Your task to perform on an android device: turn off translation in the chrome app Image 0: 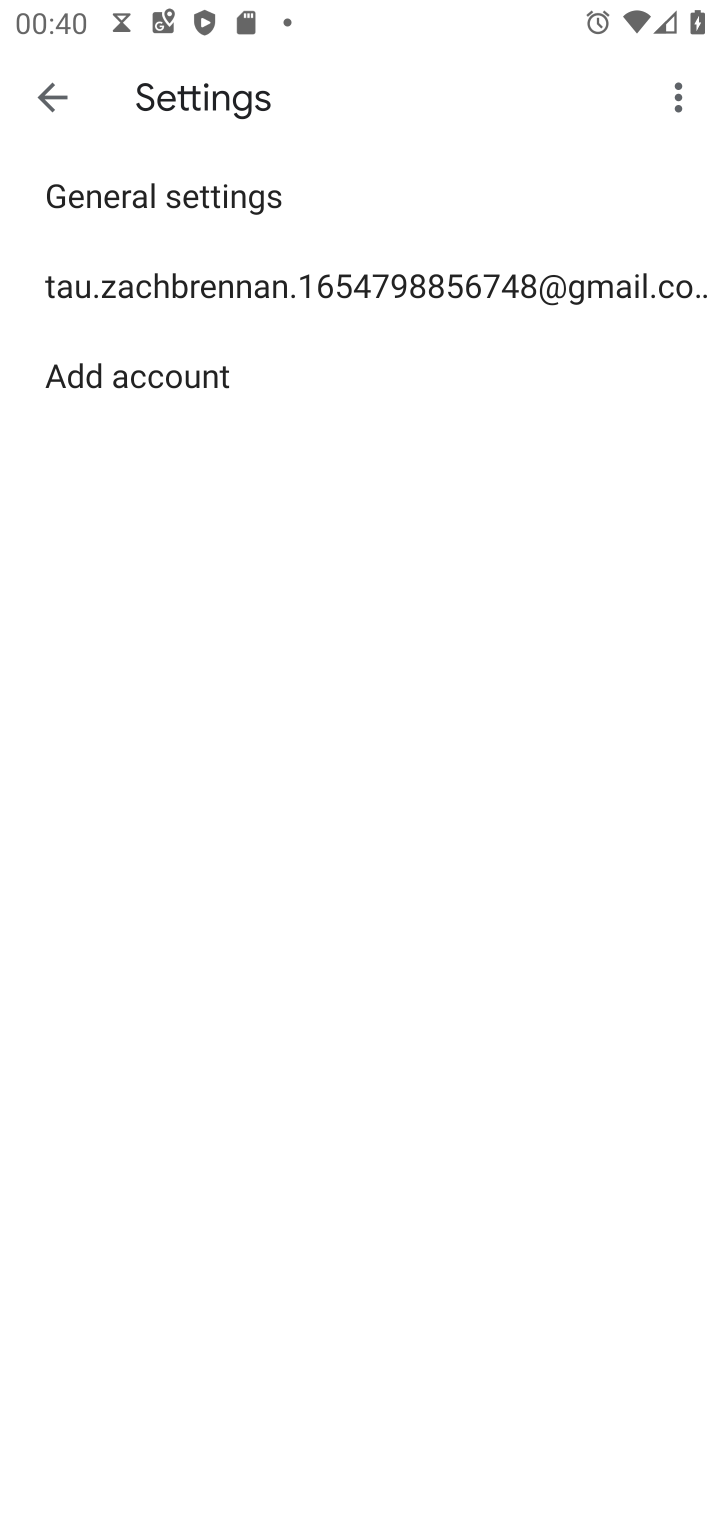
Step 0: press home button
Your task to perform on an android device: turn off translation in the chrome app Image 1: 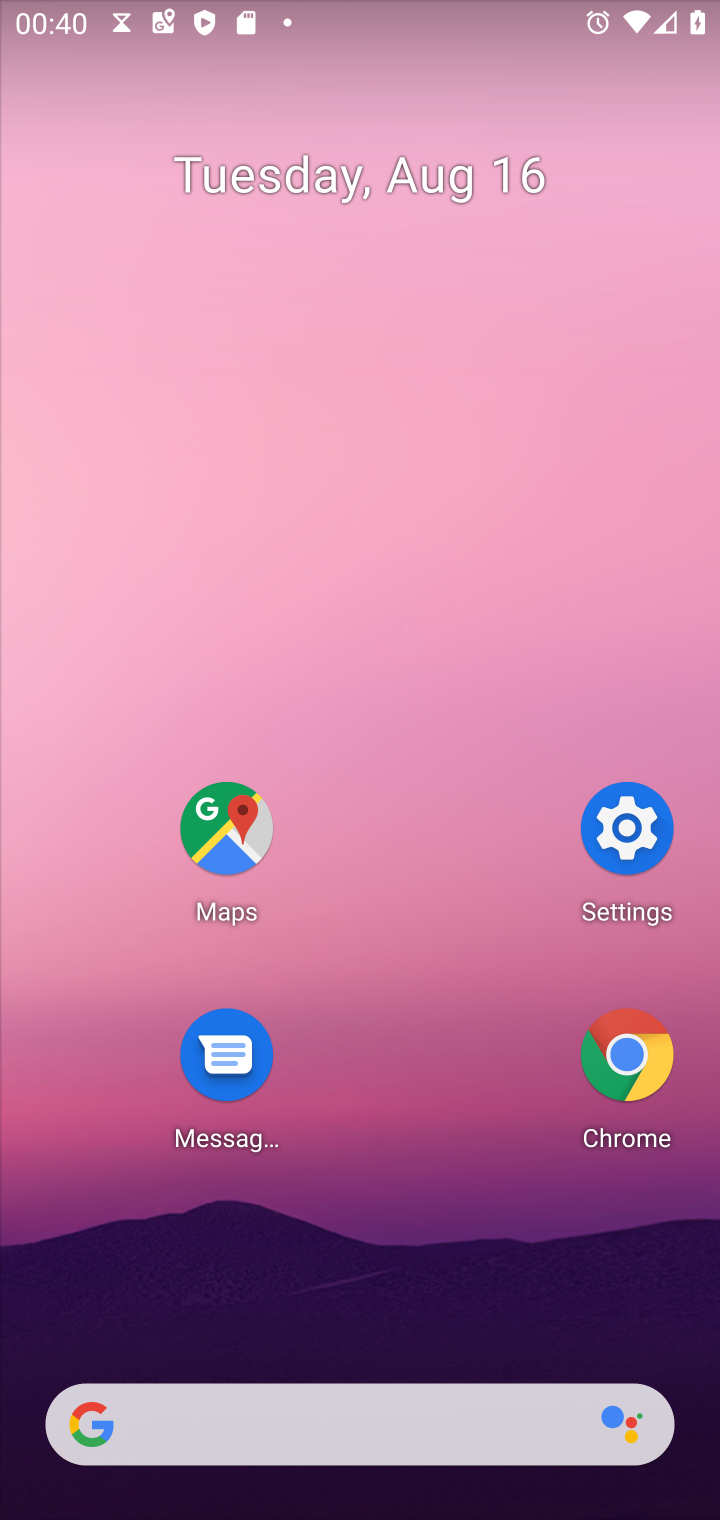
Step 1: click (632, 1051)
Your task to perform on an android device: turn off translation in the chrome app Image 2: 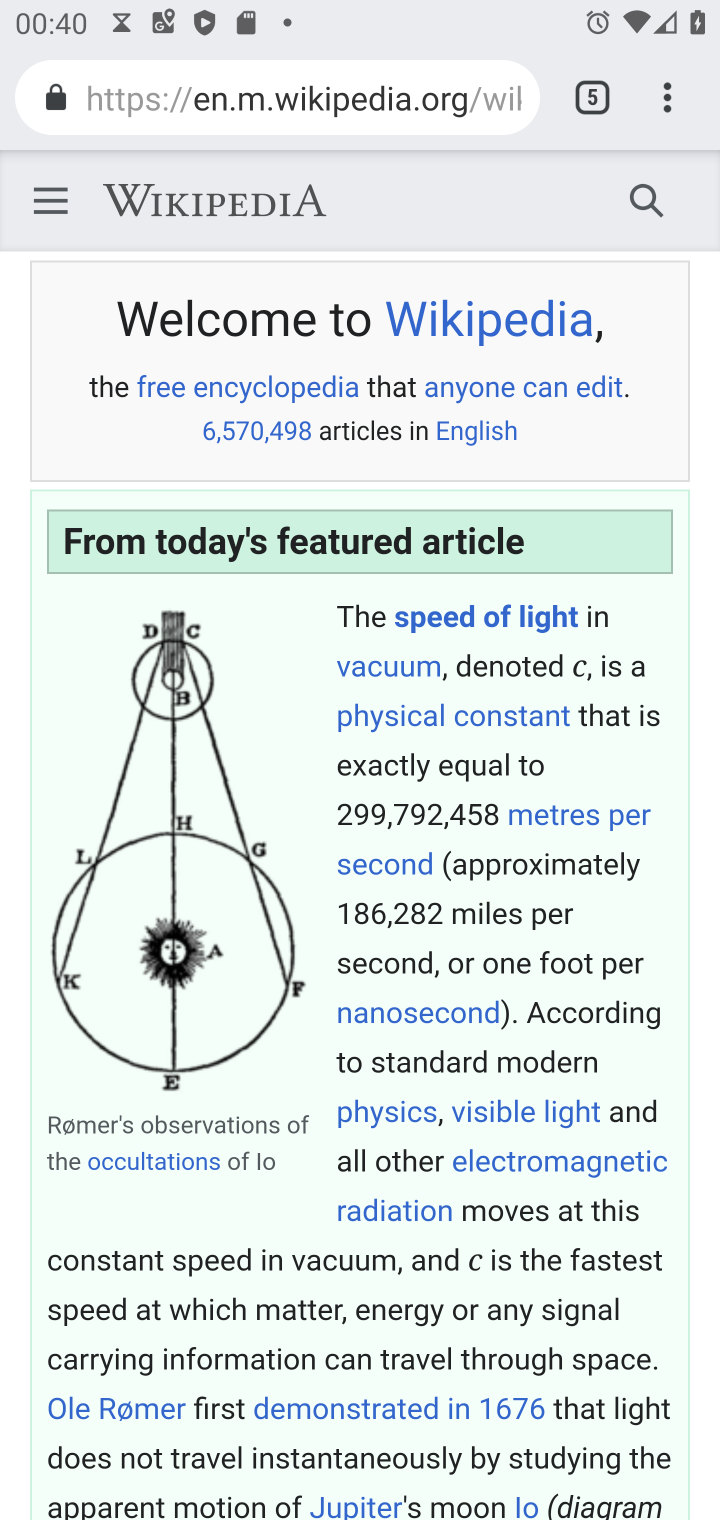
Step 2: drag from (662, 99) to (351, 1172)
Your task to perform on an android device: turn off translation in the chrome app Image 3: 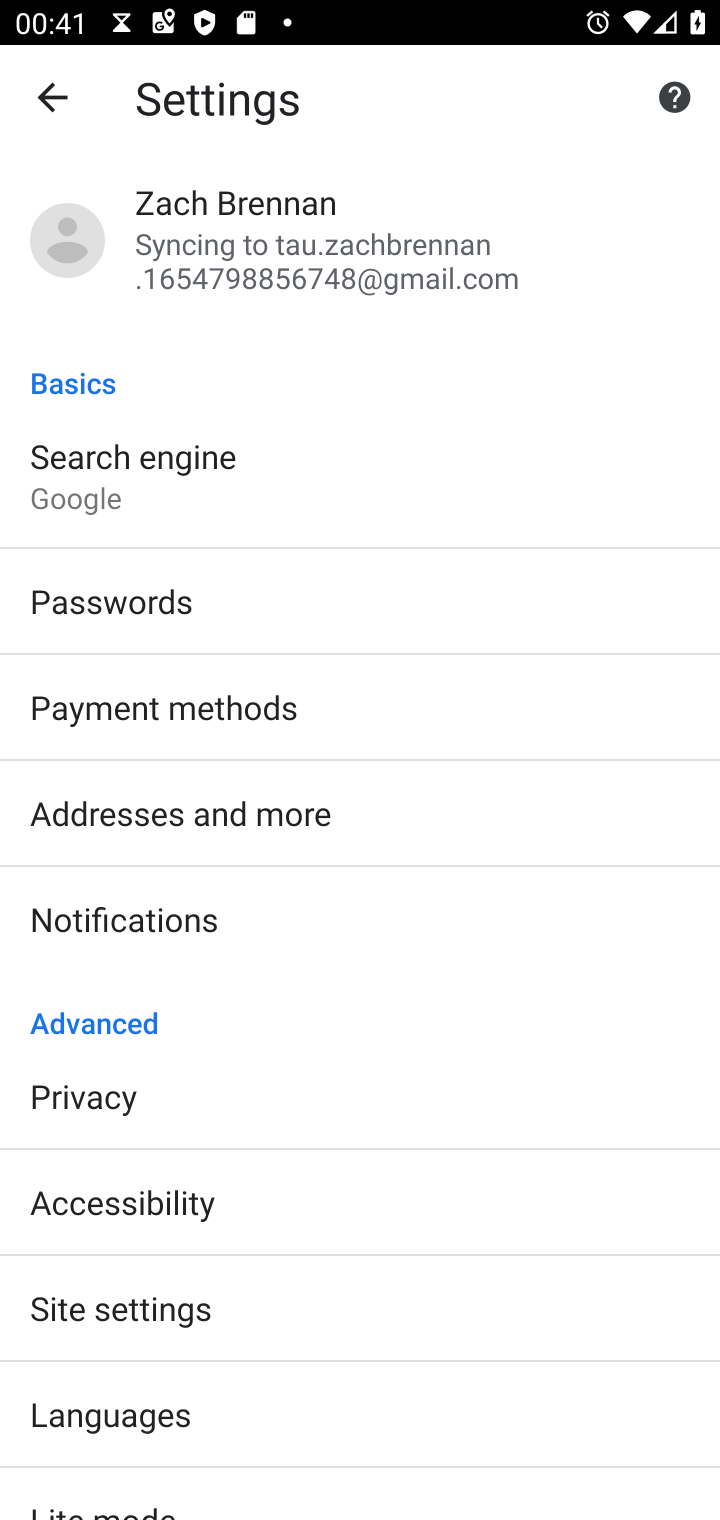
Step 3: drag from (328, 1292) to (450, 359)
Your task to perform on an android device: turn off translation in the chrome app Image 4: 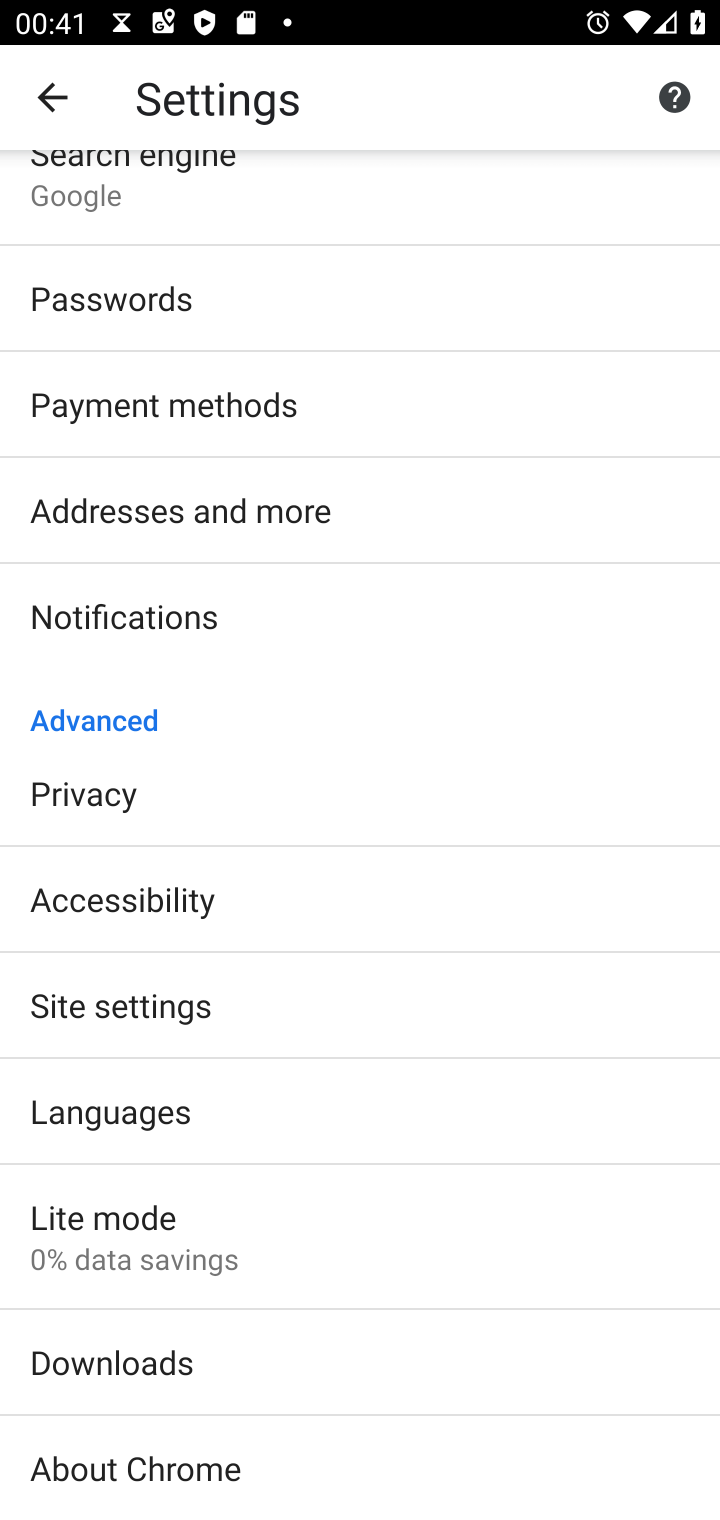
Step 4: click (126, 1112)
Your task to perform on an android device: turn off translation in the chrome app Image 5: 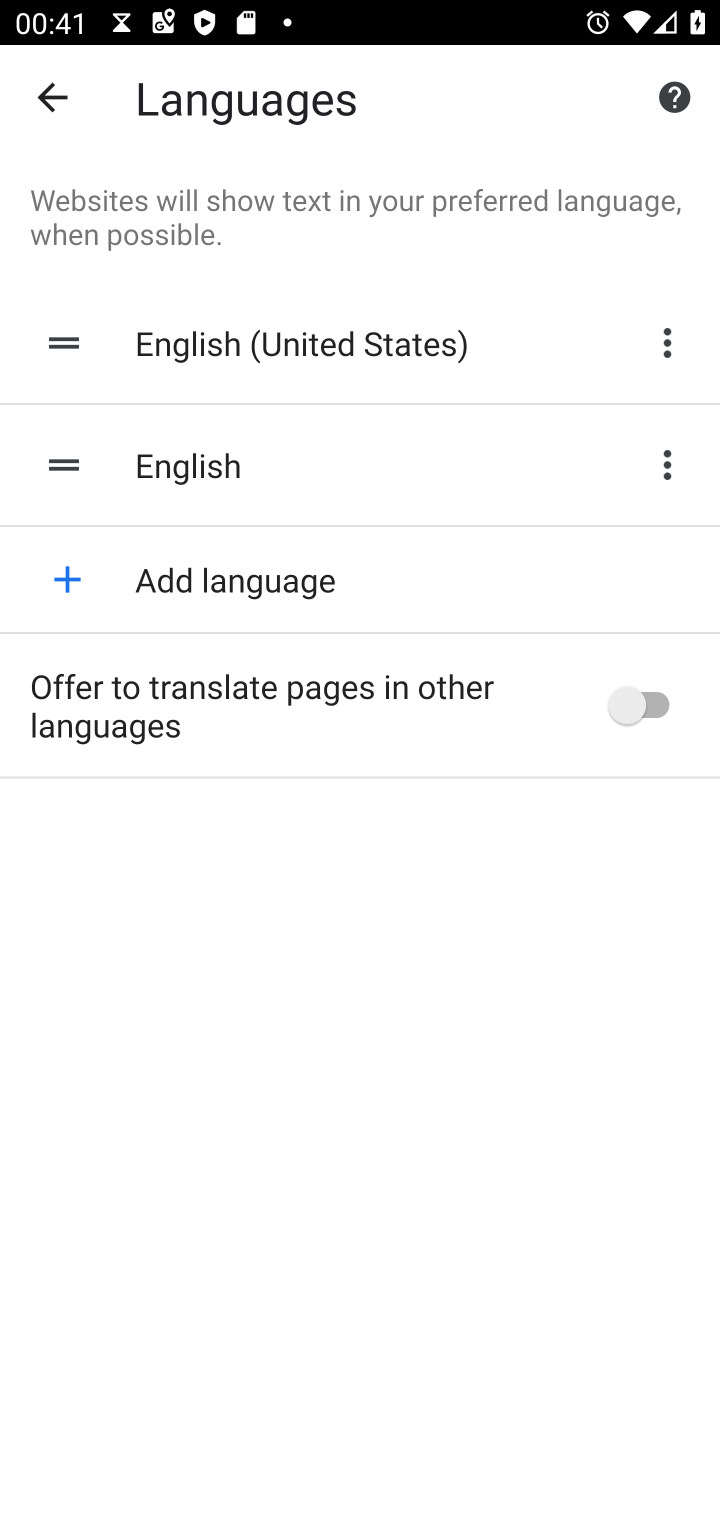
Step 5: task complete